Your task to perform on an android device: Open the calendar app, open the side menu, and click the "Day" option Image 0: 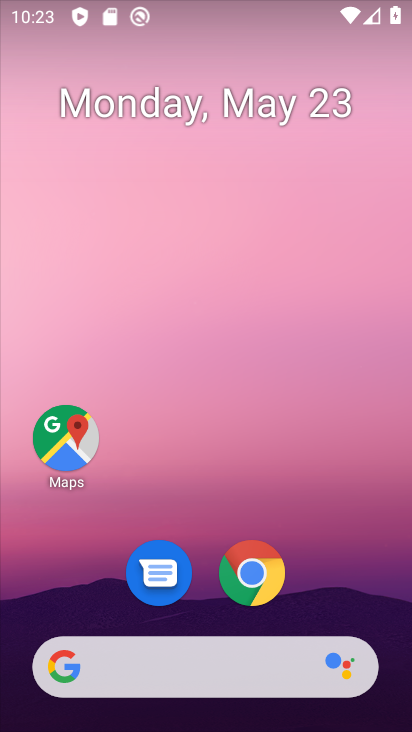
Step 0: drag from (315, 471) to (243, 0)
Your task to perform on an android device: Open the calendar app, open the side menu, and click the "Day" option Image 1: 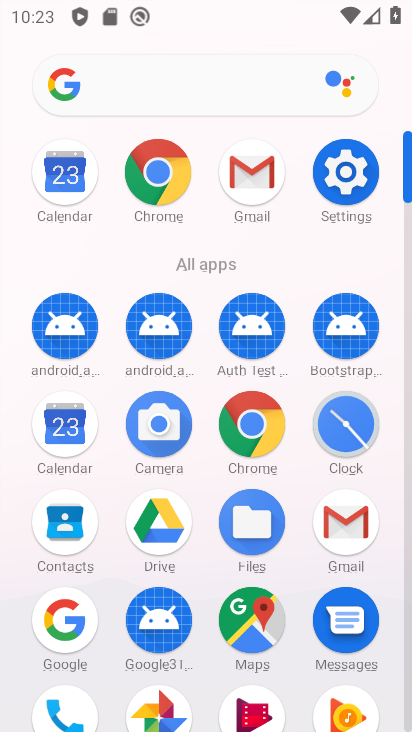
Step 1: drag from (20, 525) to (3, 180)
Your task to perform on an android device: Open the calendar app, open the side menu, and click the "Day" option Image 2: 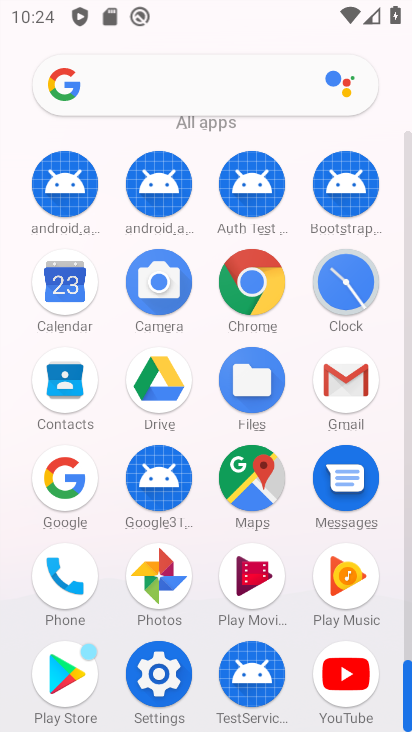
Step 2: drag from (8, 542) to (22, 307)
Your task to perform on an android device: Open the calendar app, open the side menu, and click the "Day" option Image 3: 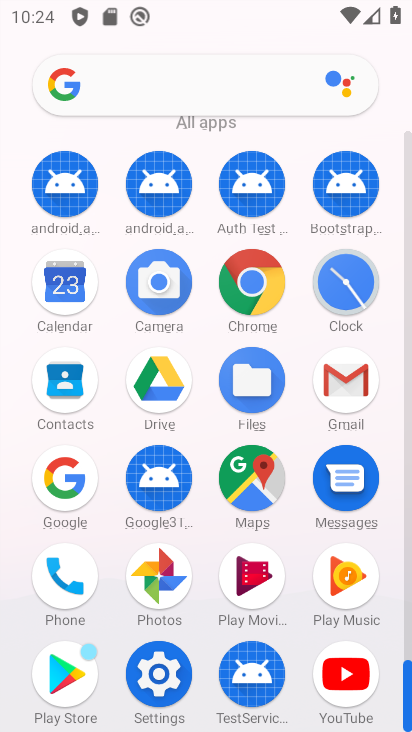
Step 3: drag from (13, 590) to (9, 241)
Your task to perform on an android device: Open the calendar app, open the side menu, and click the "Day" option Image 4: 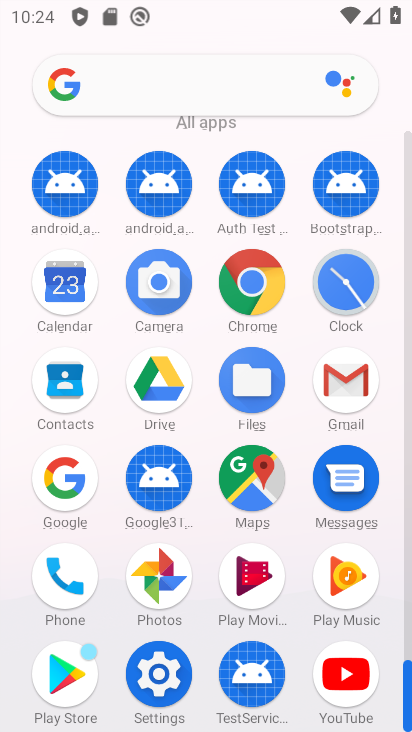
Step 4: drag from (23, 613) to (23, 211)
Your task to perform on an android device: Open the calendar app, open the side menu, and click the "Day" option Image 5: 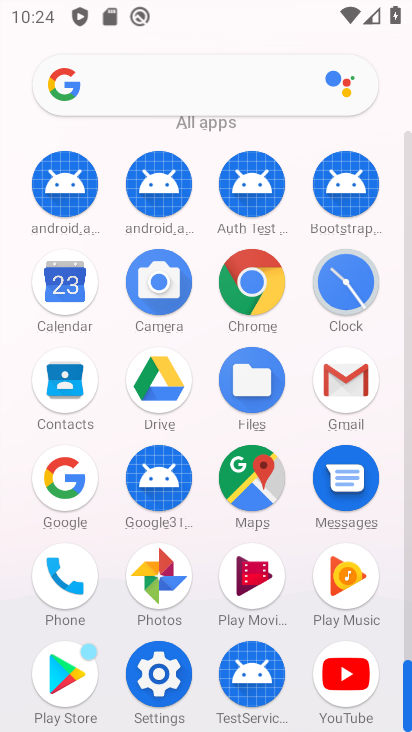
Step 5: click (60, 273)
Your task to perform on an android device: Open the calendar app, open the side menu, and click the "Day" option Image 6: 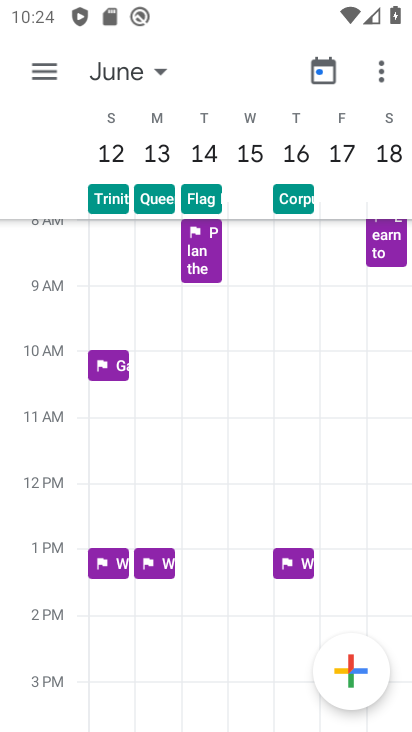
Step 6: click (40, 62)
Your task to perform on an android device: Open the calendar app, open the side menu, and click the "Day" option Image 7: 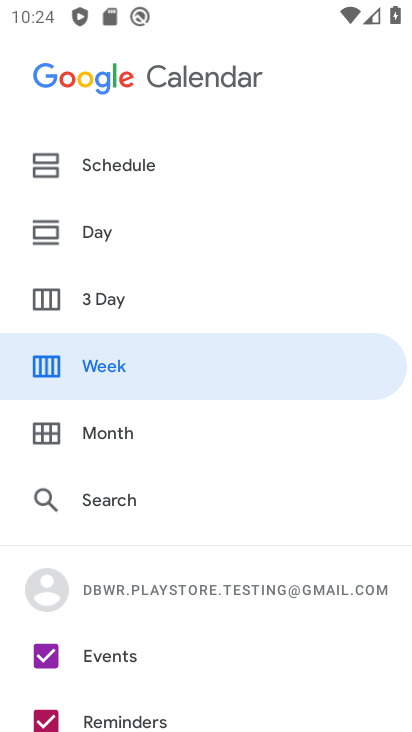
Step 7: click (121, 222)
Your task to perform on an android device: Open the calendar app, open the side menu, and click the "Day" option Image 8: 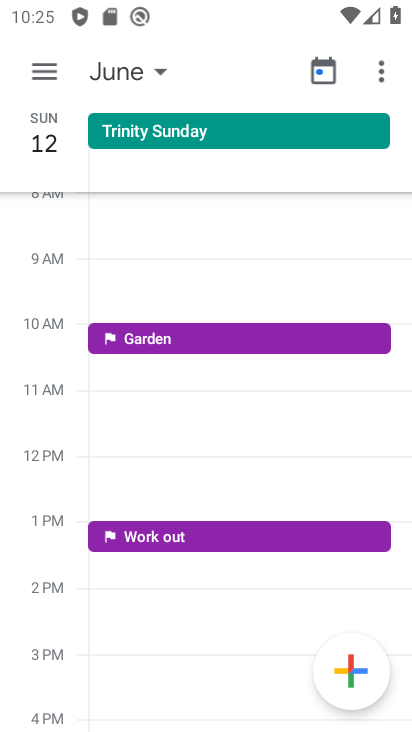
Step 8: task complete